Your task to perform on an android device: What's on my calendar tomorrow? Image 0: 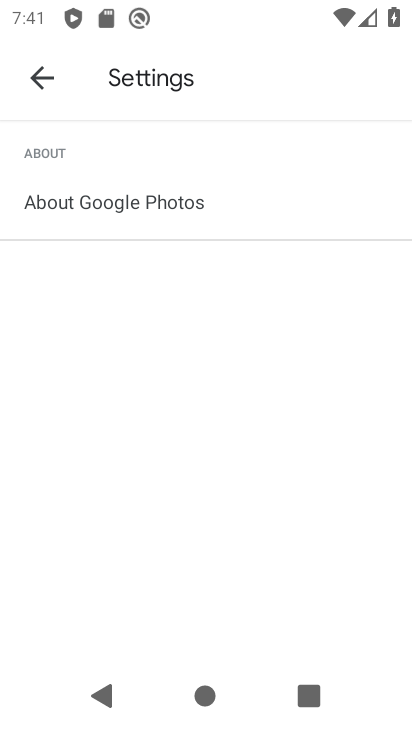
Step 0: press home button
Your task to perform on an android device: What's on my calendar tomorrow? Image 1: 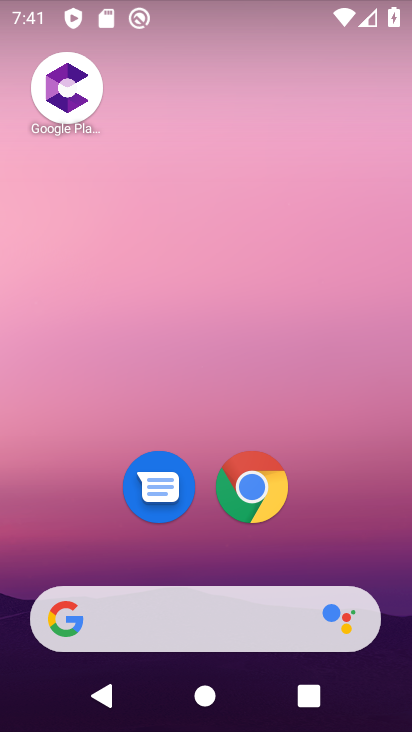
Step 1: drag from (370, 319) to (98, 12)
Your task to perform on an android device: What's on my calendar tomorrow? Image 2: 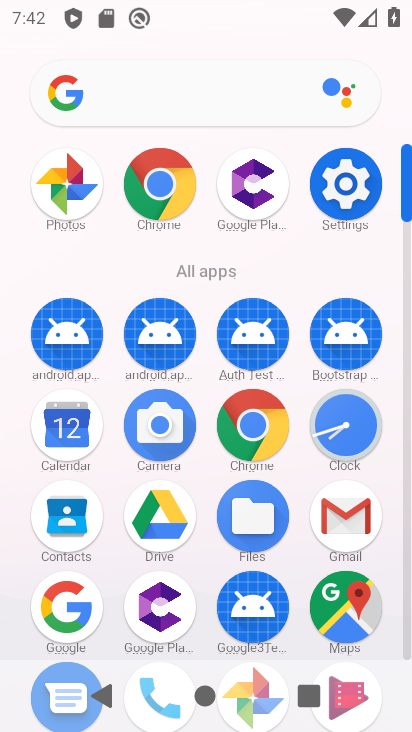
Step 2: click (54, 419)
Your task to perform on an android device: What's on my calendar tomorrow? Image 3: 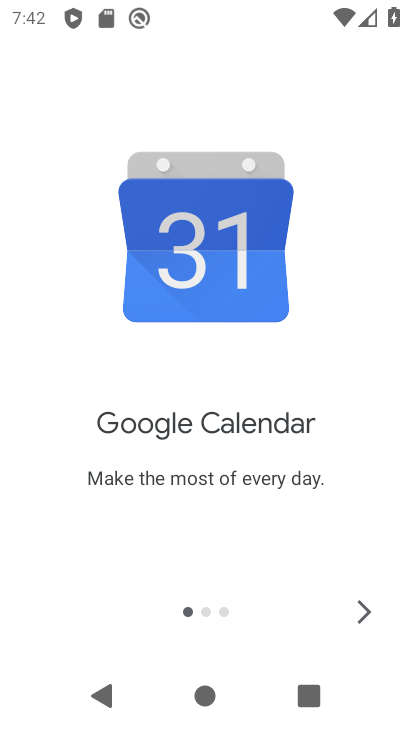
Step 3: click (357, 613)
Your task to perform on an android device: What's on my calendar tomorrow? Image 4: 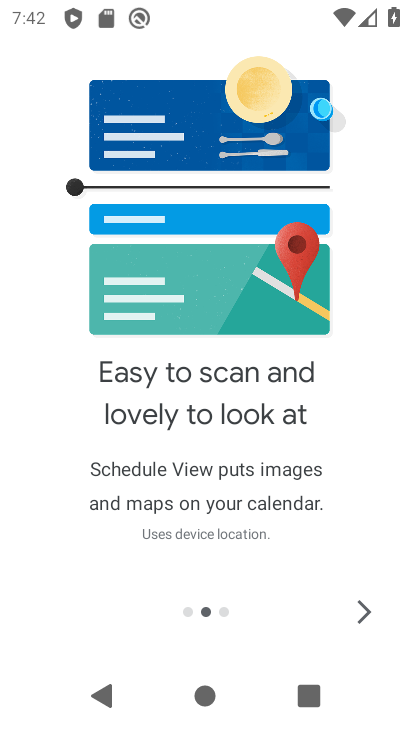
Step 4: click (357, 613)
Your task to perform on an android device: What's on my calendar tomorrow? Image 5: 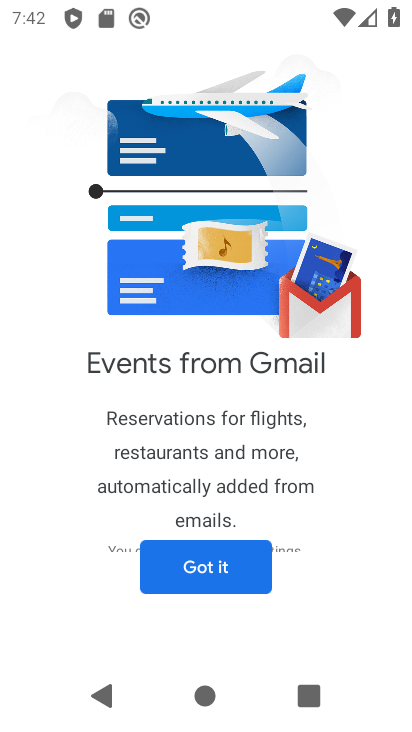
Step 5: click (166, 551)
Your task to perform on an android device: What's on my calendar tomorrow? Image 6: 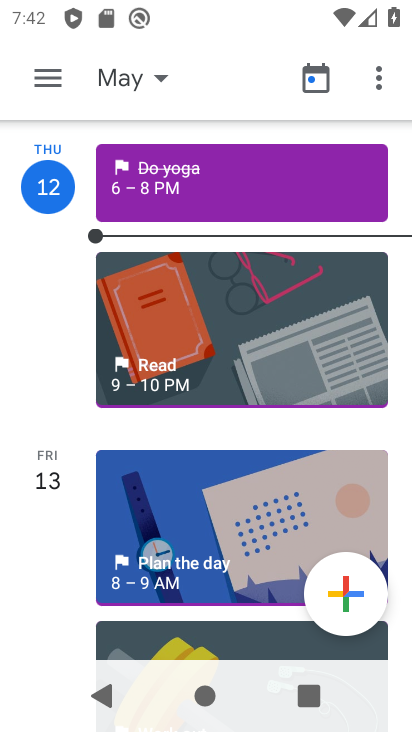
Step 6: click (125, 81)
Your task to perform on an android device: What's on my calendar tomorrow? Image 7: 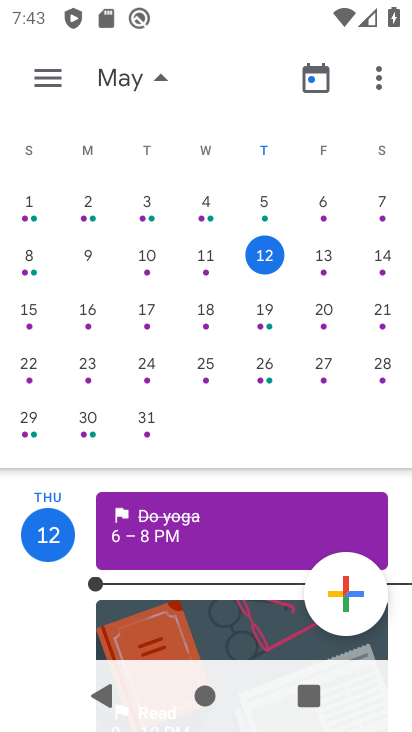
Step 7: click (323, 255)
Your task to perform on an android device: What's on my calendar tomorrow? Image 8: 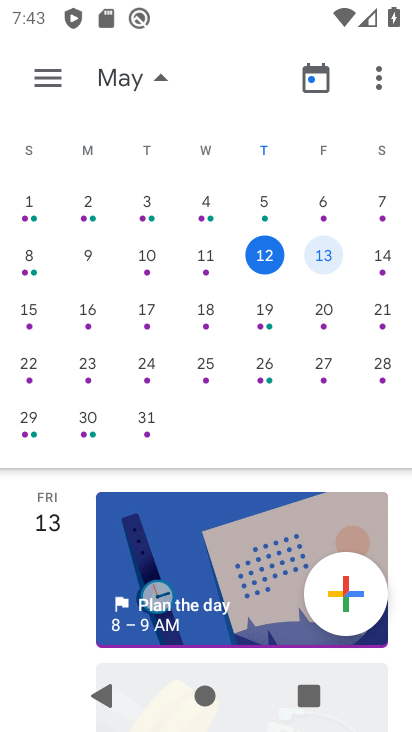
Step 8: task complete